Your task to perform on an android device: toggle notifications settings in the gmail app Image 0: 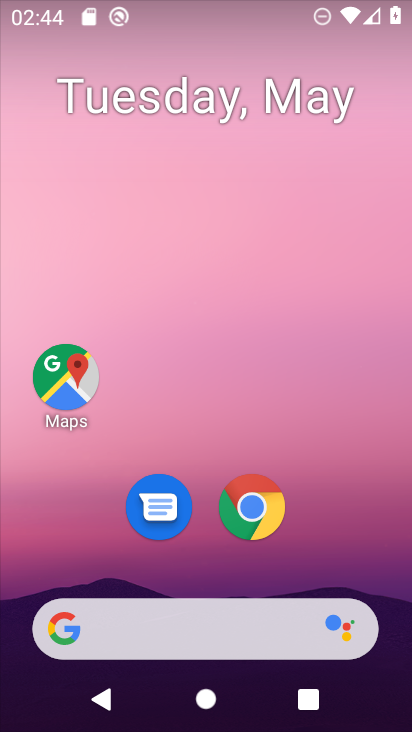
Step 0: drag from (217, 569) to (235, 240)
Your task to perform on an android device: toggle notifications settings in the gmail app Image 1: 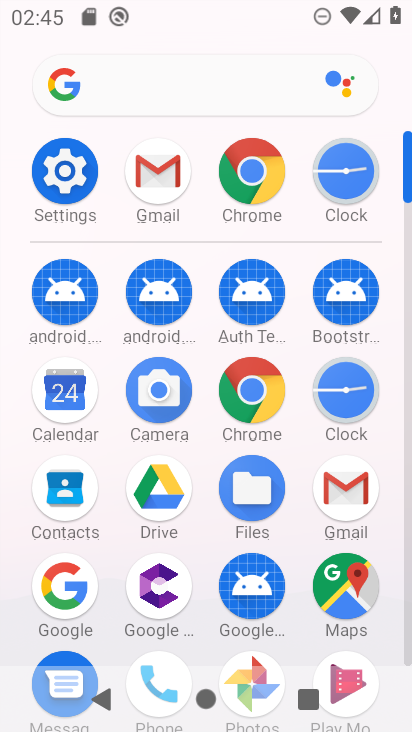
Step 1: click (177, 188)
Your task to perform on an android device: toggle notifications settings in the gmail app Image 2: 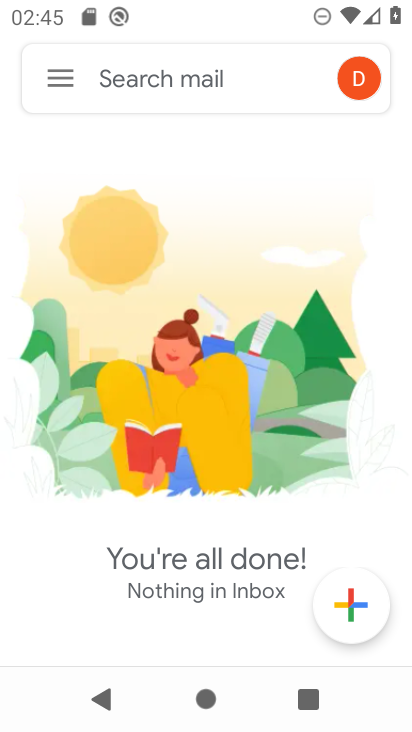
Step 2: click (58, 84)
Your task to perform on an android device: toggle notifications settings in the gmail app Image 3: 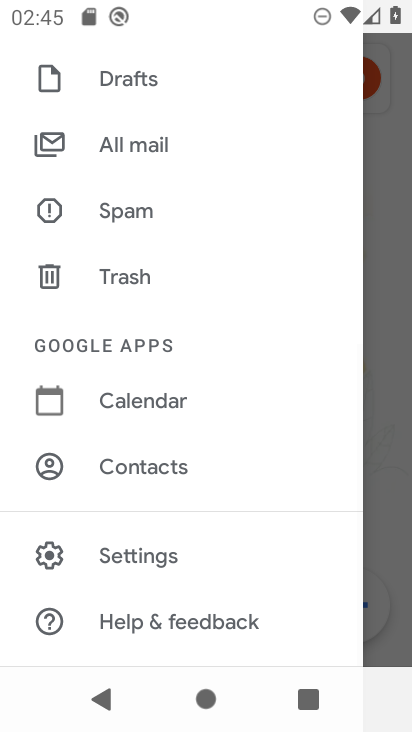
Step 3: click (199, 543)
Your task to perform on an android device: toggle notifications settings in the gmail app Image 4: 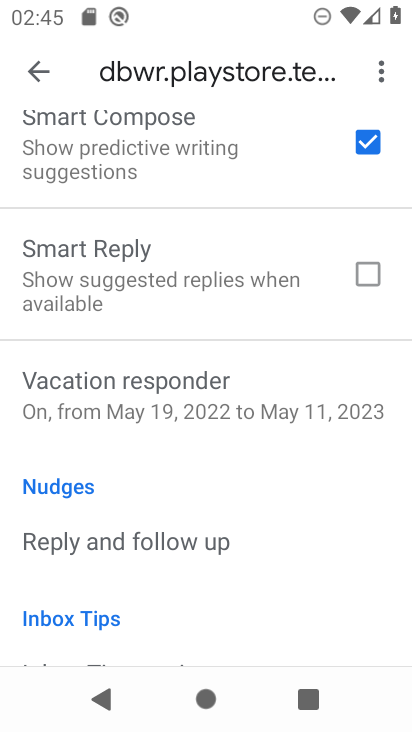
Step 4: drag from (204, 246) to (245, 567)
Your task to perform on an android device: toggle notifications settings in the gmail app Image 5: 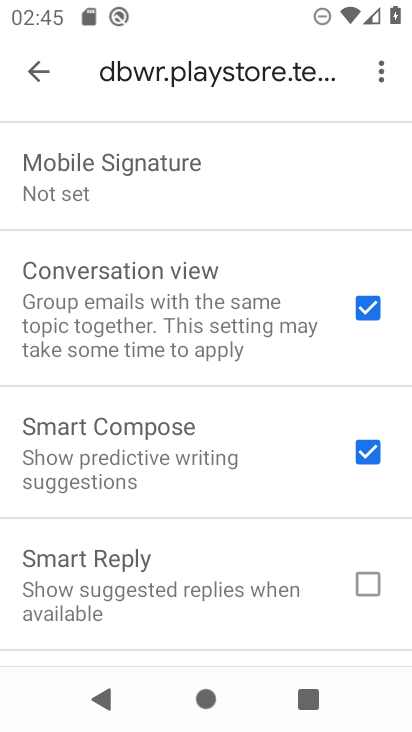
Step 5: drag from (192, 235) to (194, 536)
Your task to perform on an android device: toggle notifications settings in the gmail app Image 6: 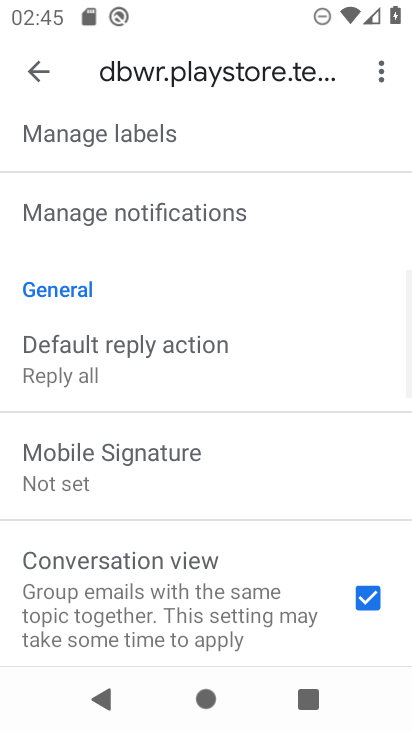
Step 6: drag from (171, 274) to (185, 437)
Your task to perform on an android device: toggle notifications settings in the gmail app Image 7: 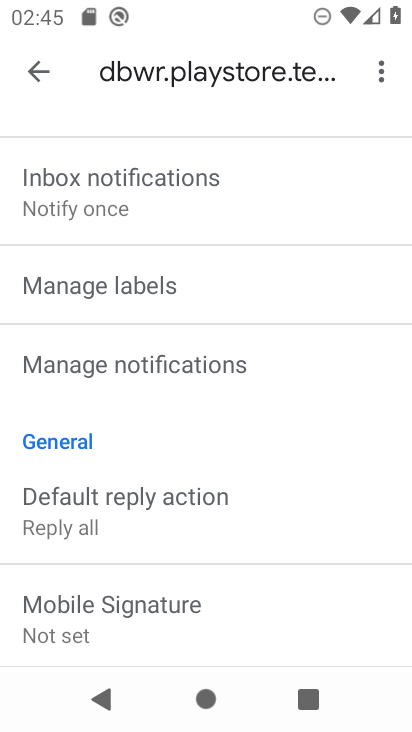
Step 7: click (179, 368)
Your task to perform on an android device: toggle notifications settings in the gmail app Image 8: 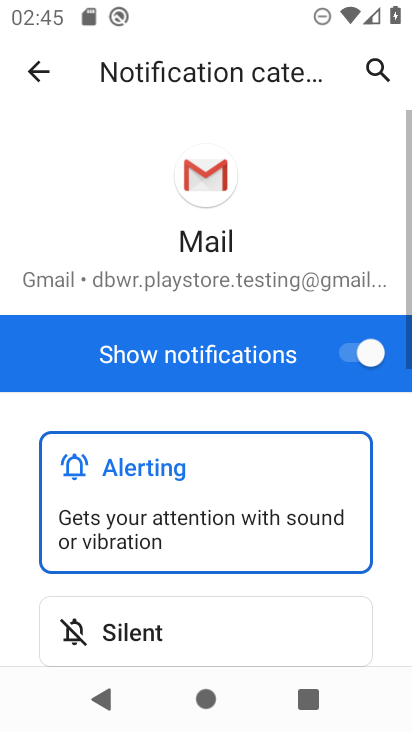
Step 8: drag from (242, 549) to (255, 338)
Your task to perform on an android device: toggle notifications settings in the gmail app Image 9: 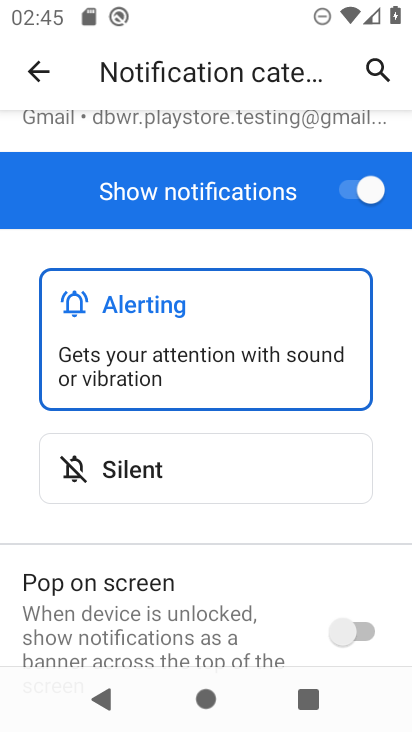
Step 9: click (349, 192)
Your task to perform on an android device: toggle notifications settings in the gmail app Image 10: 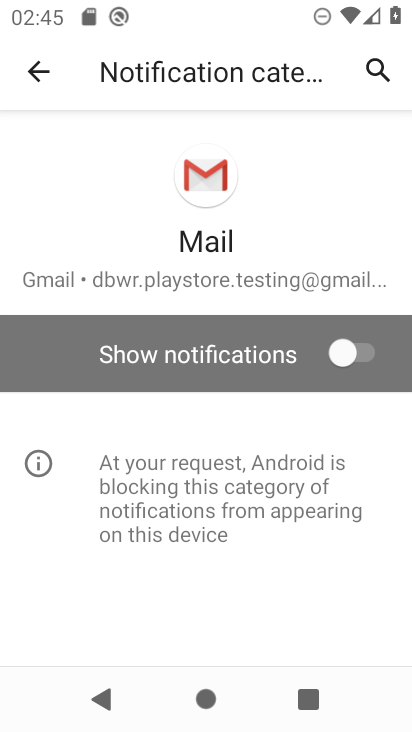
Step 10: task complete